Your task to perform on an android device: turn off picture-in-picture Image 0: 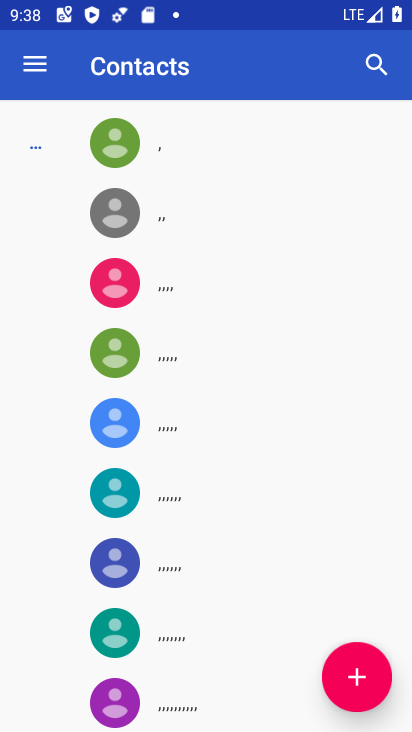
Step 0: press home button
Your task to perform on an android device: turn off picture-in-picture Image 1: 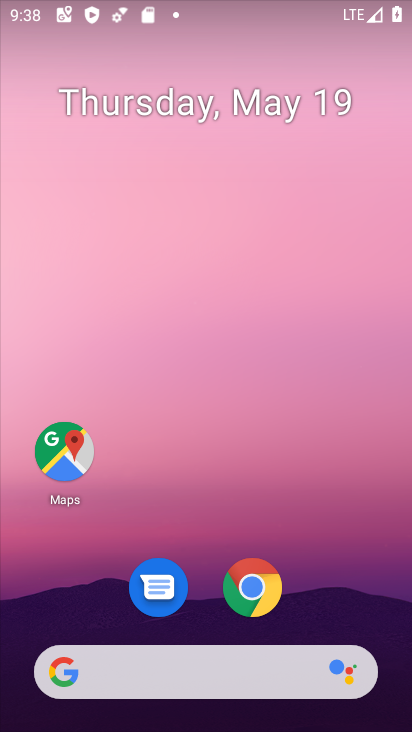
Step 1: click (259, 579)
Your task to perform on an android device: turn off picture-in-picture Image 2: 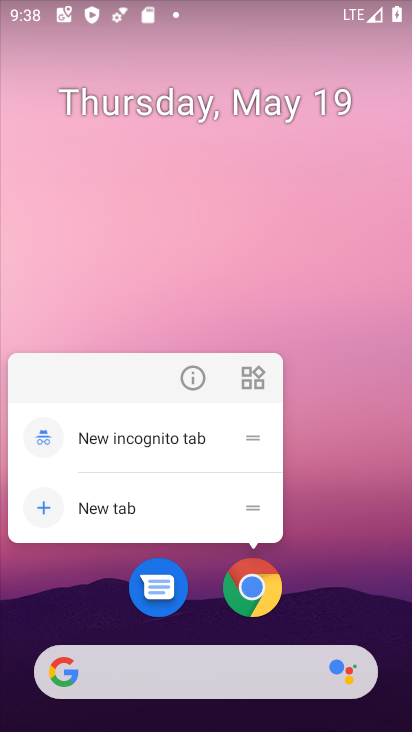
Step 2: click (188, 379)
Your task to perform on an android device: turn off picture-in-picture Image 3: 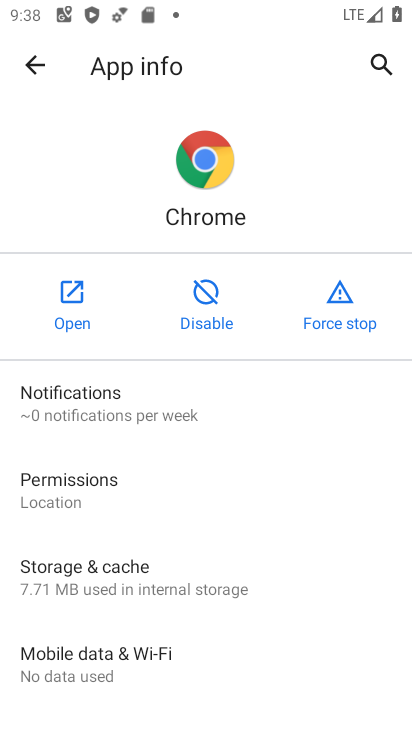
Step 3: drag from (106, 691) to (130, 218)
Your task to perform on an android device: turn off picture-in-picture Image 4: 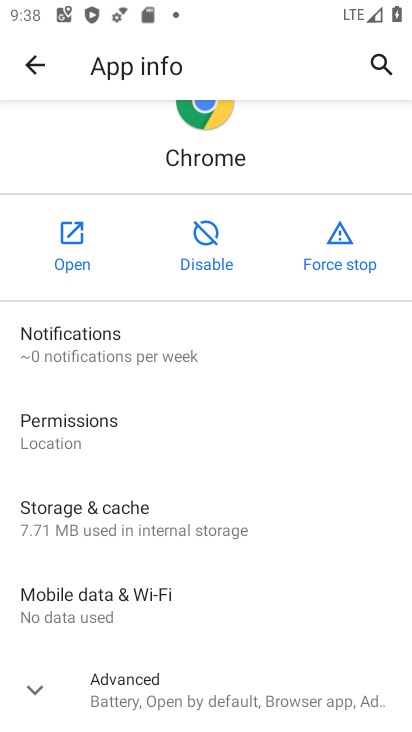
Step 4: click (142, 704)
Your task to perform on an android device: turn off picture-in-picture Image 5: 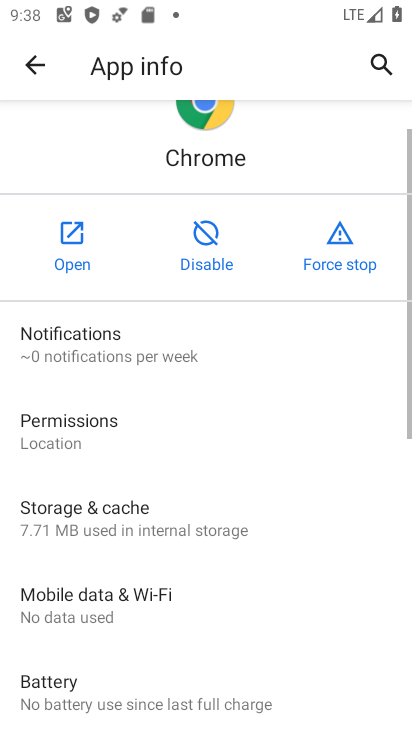
Step 5: drag from (142, 704) to (216, 213)
Your task to perform on an android device: turn off picture-in-picture Image 6: 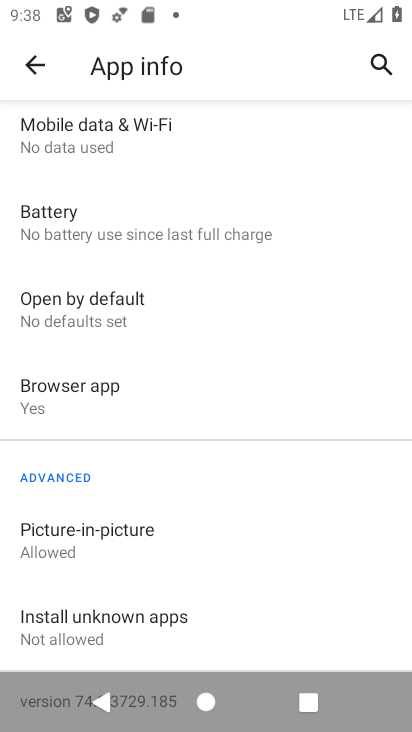
Step 6: click (166, 551)
Your task to perform on an android device: turn off picture-in-picture Image 7: 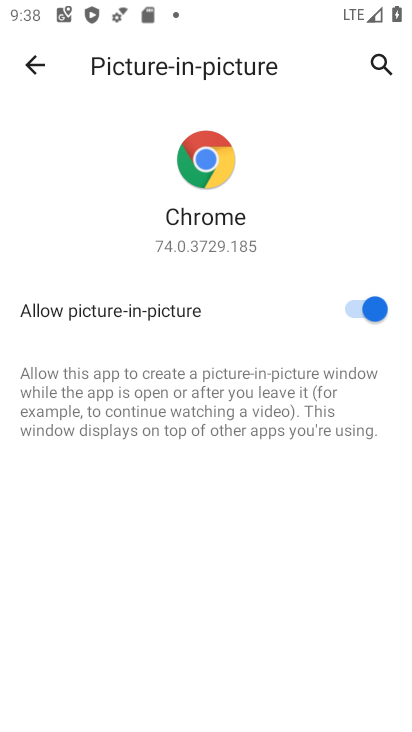
Step 7: click (362, 309)
Your task to perform on an android device: turn off picture-in-picture Image 8: 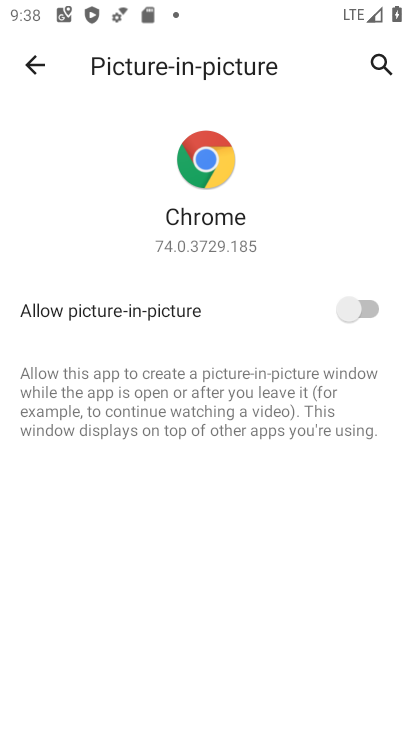
Step 8: task complete